Your task to perform on an android device: turn vacation reply on in the gmail app Image 0: 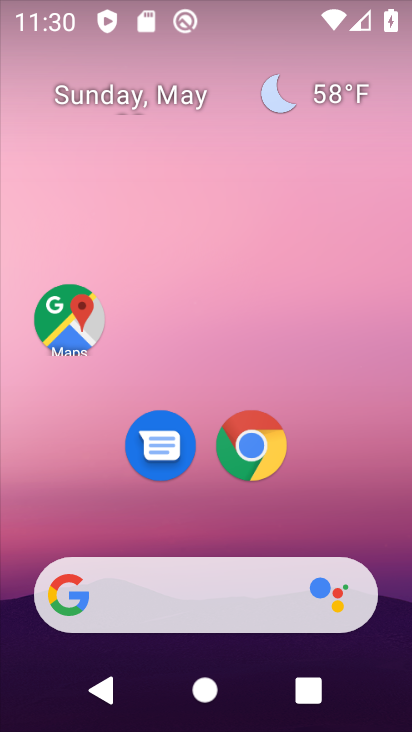
Step 0: drag from (209, 524) to (235, 10)
Your task to perform on an android device: turn vacation reply on in the gmail app Image 1: 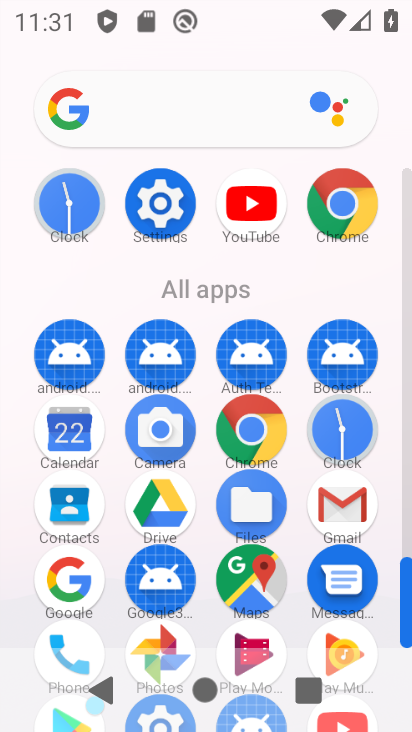
Step 1: click (336, 500)
Your task to perform on an android device: turn vacation reply on in the gmail app Image 2: 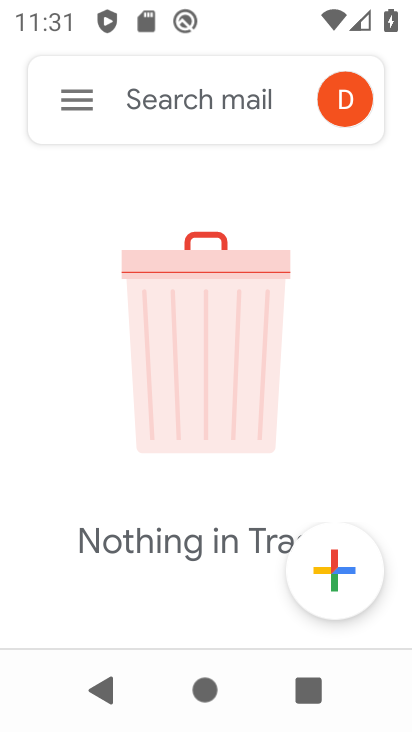
Step 2: click (65, 101)
Your task to perform on an android device: turn vacation reply on in the gmail app Image 3: 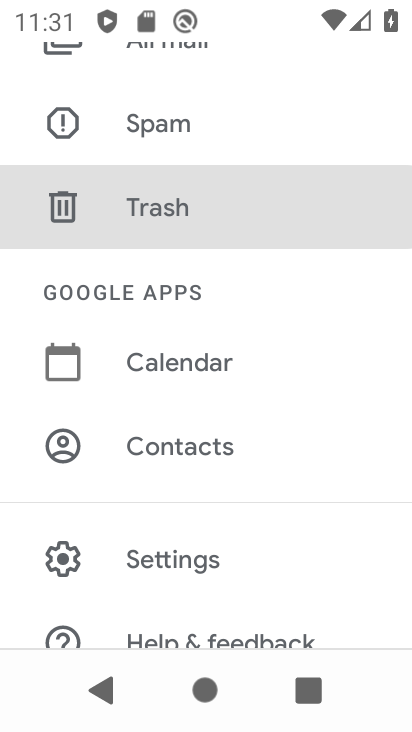
Step 3: click (221, 564)
Your task to perform on an android device: turn vacation reply on in the gmail app Image 4: 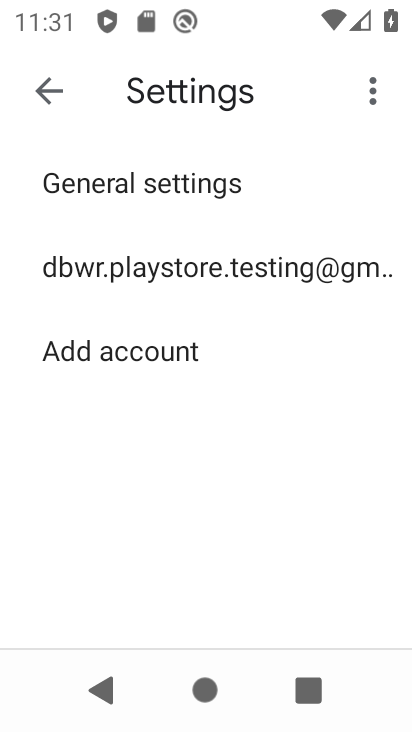
Step 4: click (197, 259)
Your task to perform on an android device: turn vacation reply on in the gmail app Image 5: 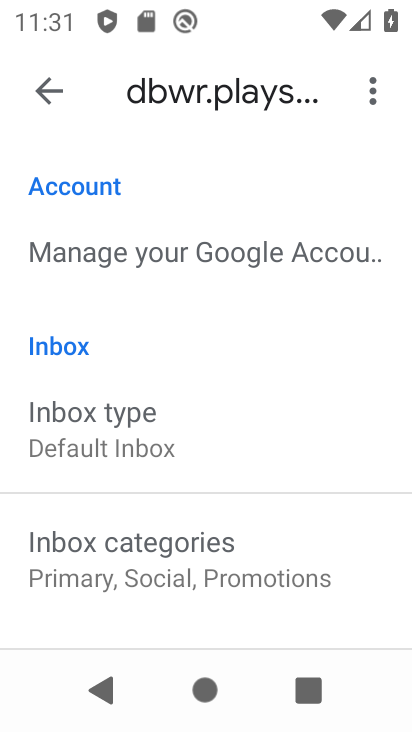
Step 5: drag from (204, 558) to (229, 32)
Your task to perform on an android device: turn vacation reply on in the gmail app Image 6: 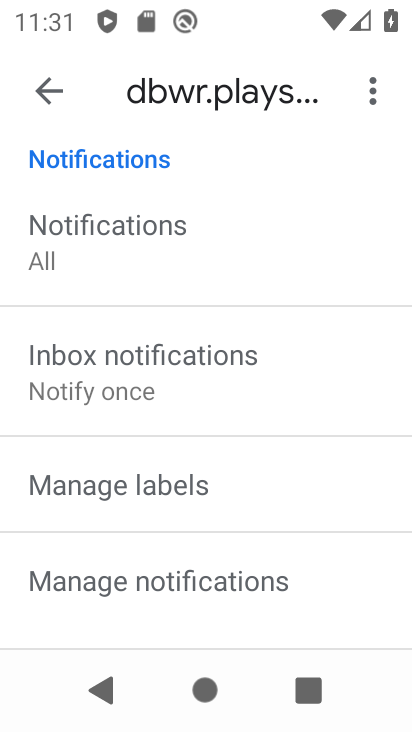
Step 6: drag from (204, 580) to (241, 96)
Your task to perform on an android device: turn vacation reply on in the gmail app Image 7: 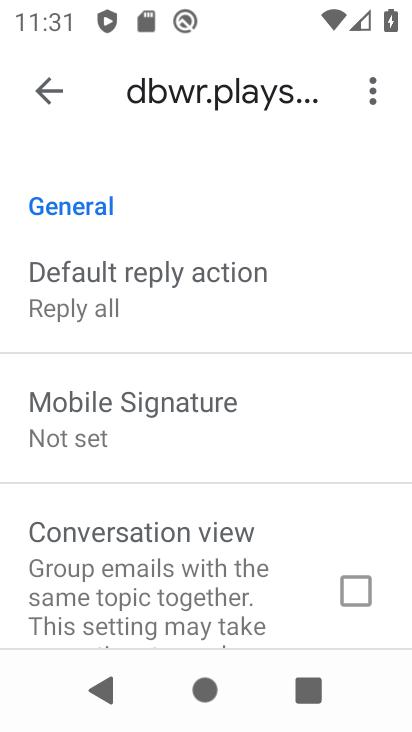
Step 7: drag from (190, 500) to (217, 84)
Your task to perform on an android device: turn vacation reply on in the gmail app Image 8: 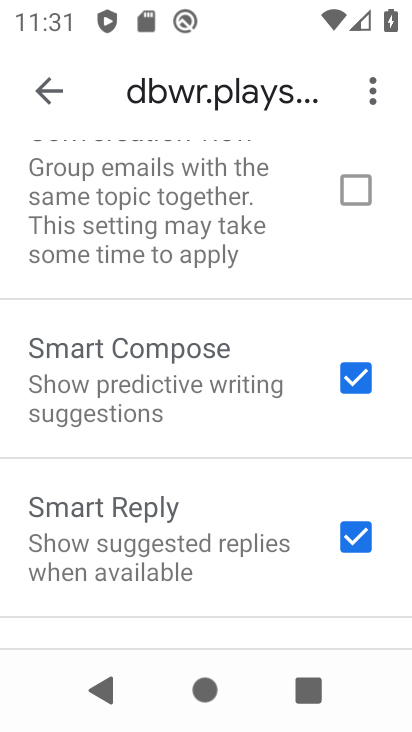
Step 8: drag from (205, 543) to (200, 91)
Your task to perform on an android device: turn vacation reply on in the gmail app Image 9: 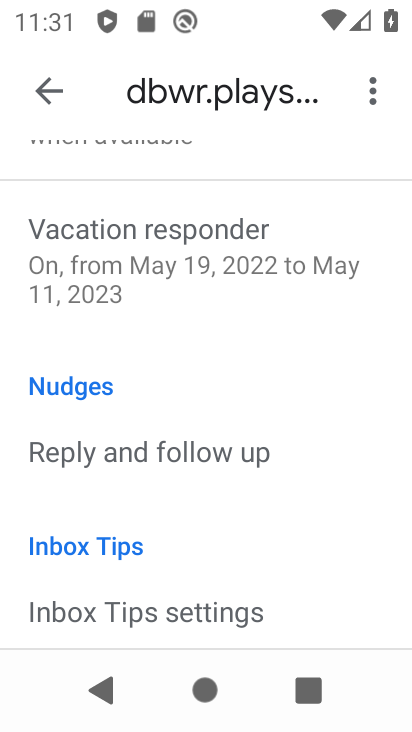
Step 9: click (194, 244)
Your task to perform on an android device: turn vacation reply on in the gmail app Image 10: 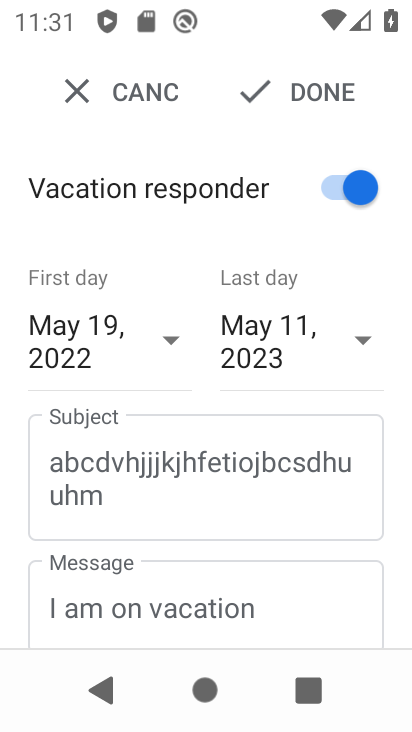
Step 10: task complete